Your task to perform on an android device: Open calendar and show me the first week of next month Image 0: 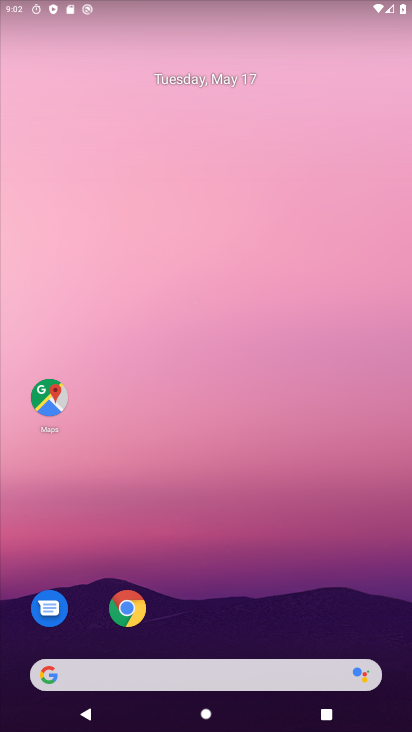
Step 0: drag from (381, 590) to (329, 117)
Your task to perform on an android device: Open calendar and show me the first week of next month Image 1: 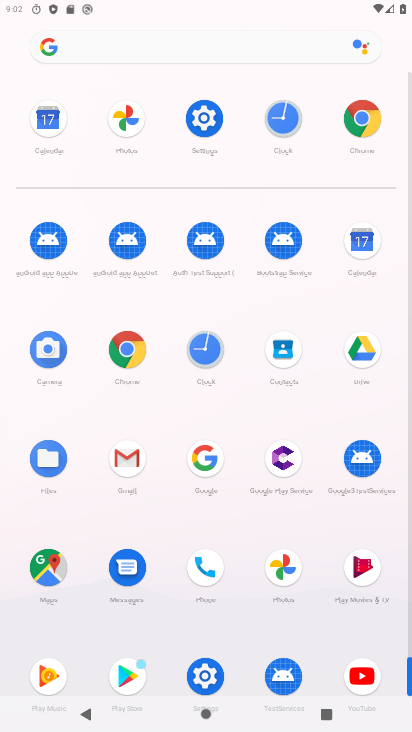
Step 1: click (364, 241)
Your task to perform on an android device: Open calendar and show me the first week of next month Image 2: 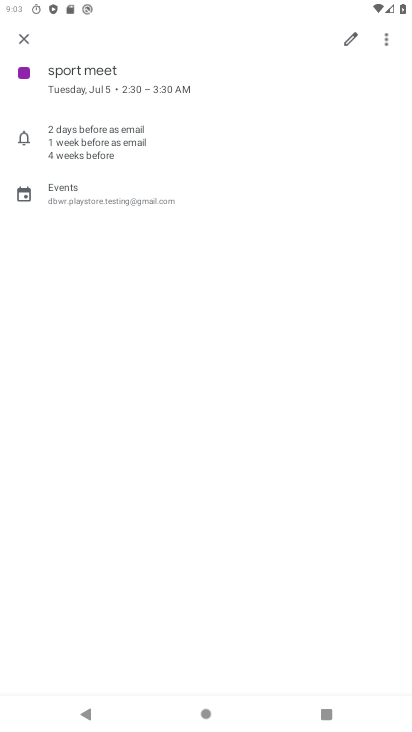
Step 2: click (10, 31)
Your task to perform on an android device: Open calendar and show me the first week of next month Image 3: 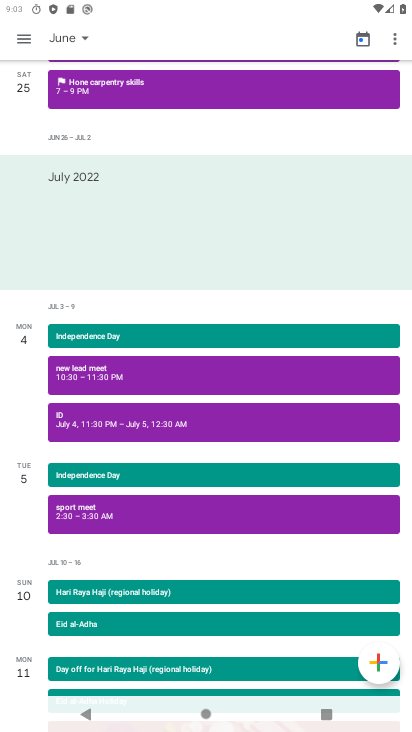
Step 3: click (58, 43)
Your task to perform on an android device: Open calendar and show me the first week of next month Image 4: 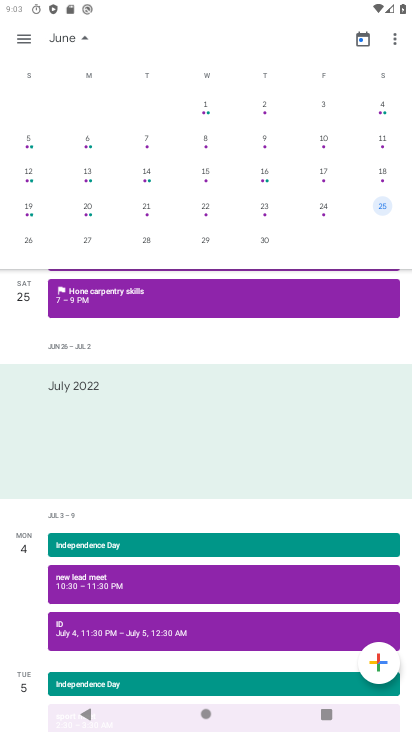
Step 4: click (205, 104)
Your task to perform on an android device: Open calendar and show me the first week of next month Image 5: 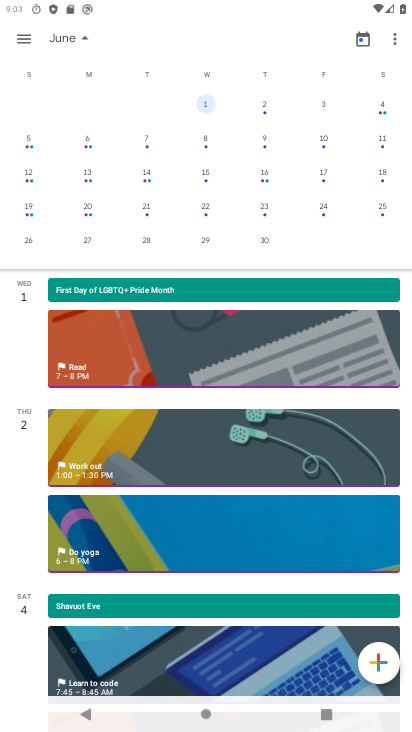
Step 5: task complete